Your task to perform on an android device: toggle notification dots Image 0: 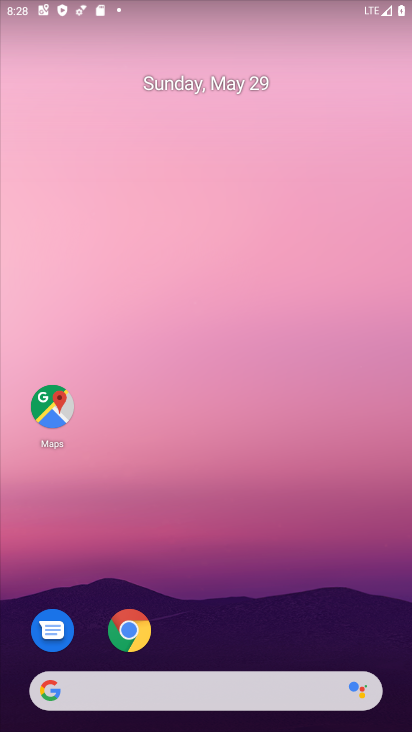
Step 0: drag from (245, 655) to (275, 30)
Your task to perform on an android device: toggle notification dots Image 1: 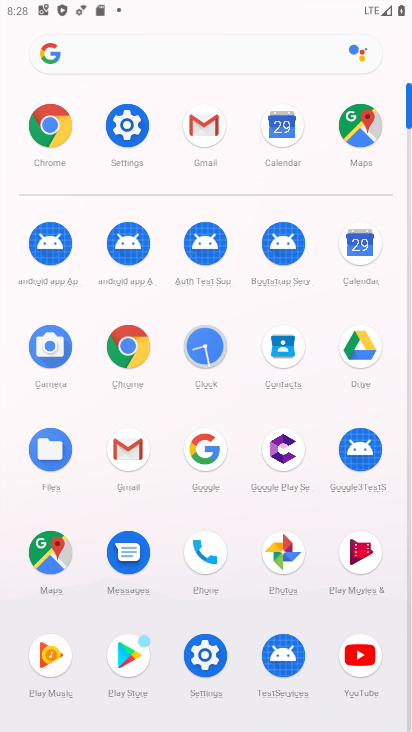
Step 1: click (120, 116)
Your task to perform on an android device: toggle notification dots Image 2: 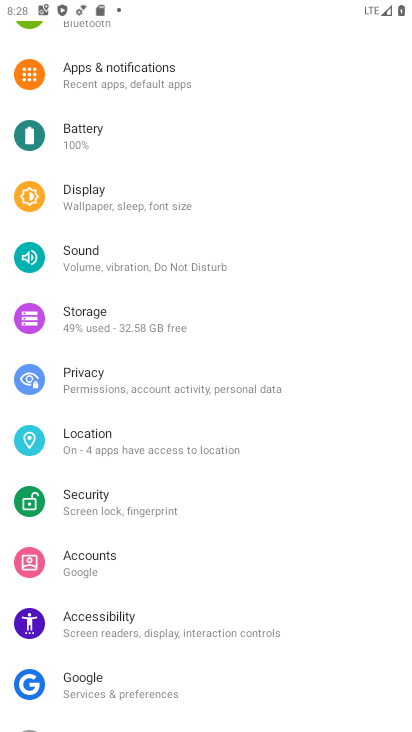
Step 2: click (131, 96)
Your task to perform on an android device: toggle notification dots Image 3: 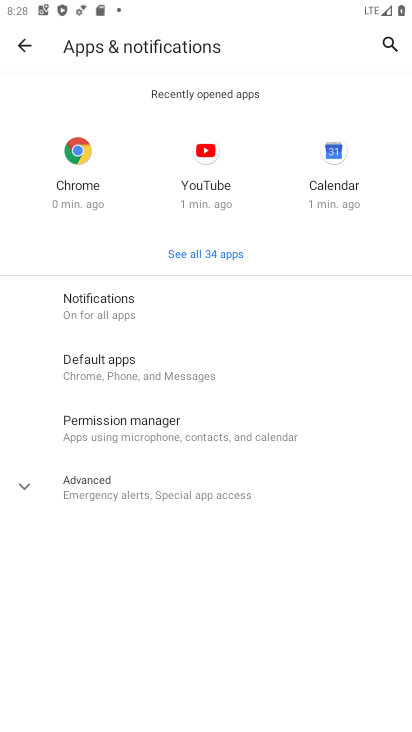
Step 3: click (116, 293)
Your task to perform on an android device: toggle notification dots Image 4: 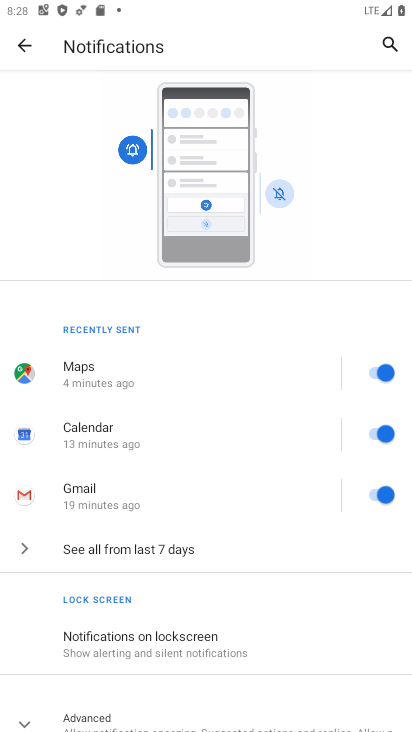
Step 4: drag from (251, 614) to (248, 294)
Your task to perform on an android device: toggle notification dots Image 5: 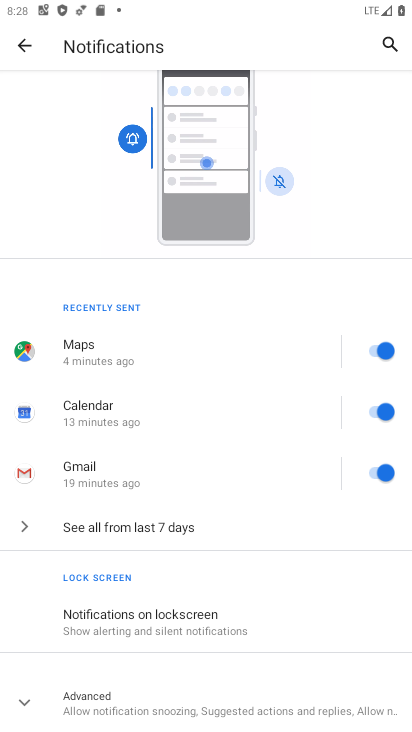
Step 5: click (154, 681)
Your task to perform on an android device: toggle notification dots Image 6: 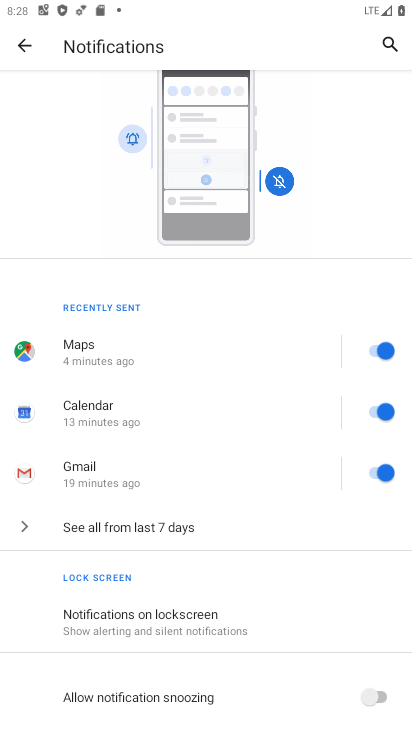
Step 6: drag from (281, 618) to (199, 221)
Your task to perform on an android device: toggle notification dots Image 7: 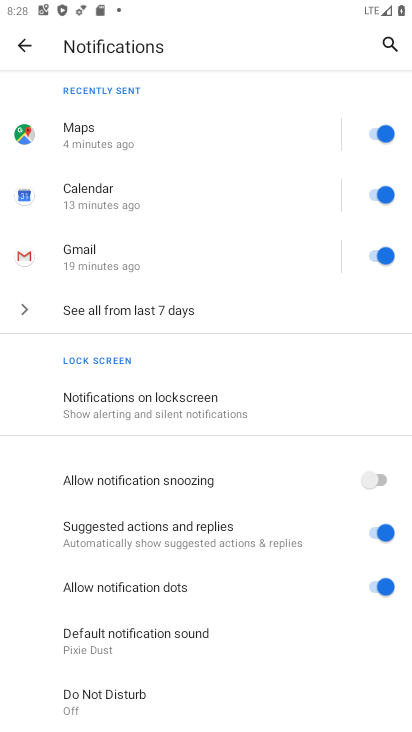
Step 7: click (374, 602)
Your task to perform on an android device: toggle notification dots Image 8: 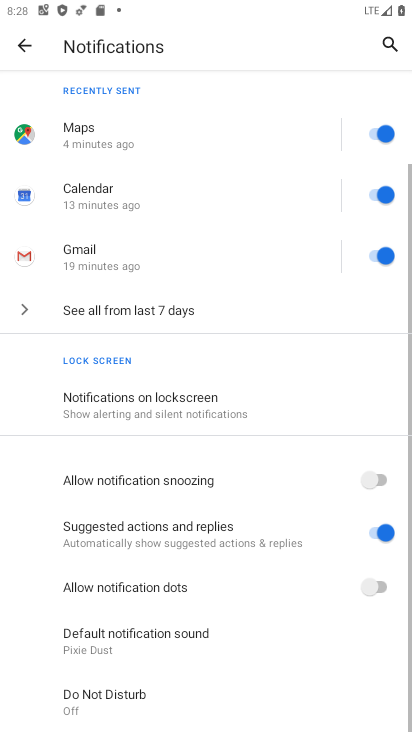
Step 8: task complete